Your task to perform on an android device: turn off location Image 0: 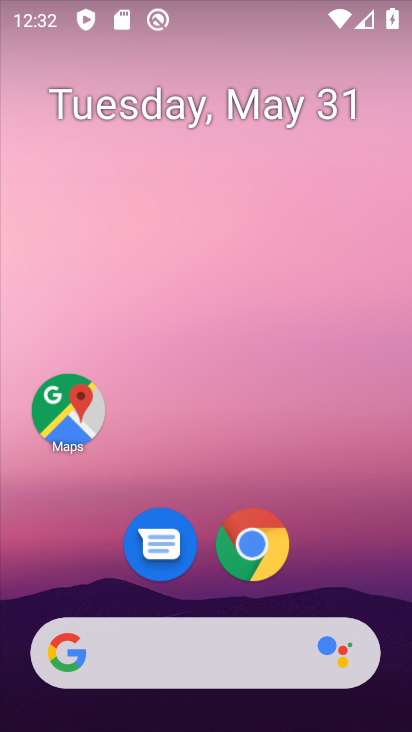
Step 0: drag from (45, 620) to (297, 13)
Your task to perform on an android device: turn off location Image 1: 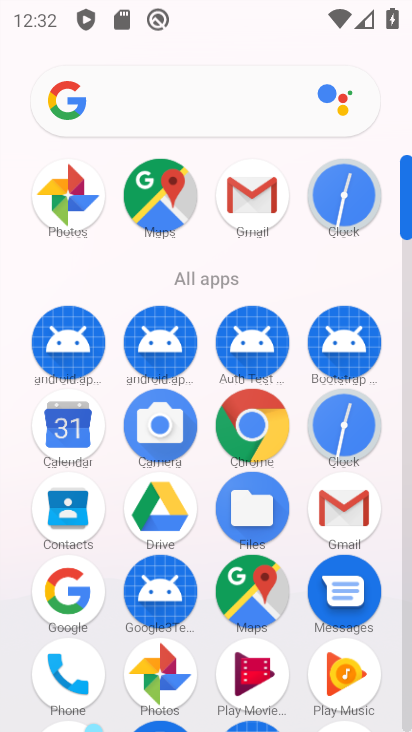
Step 1: drag from (243, 671) to (342, 208)
Your task to perform on an android device: turn off location Image 2: 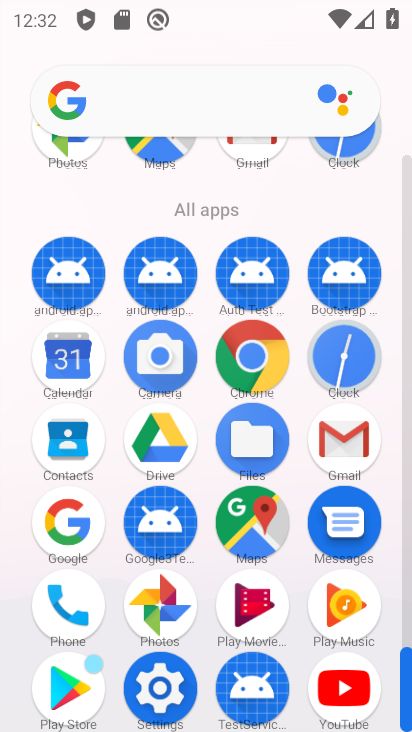
Step 2: click (166, 685)
Your task to perform on an android device: turn off location Image 3: 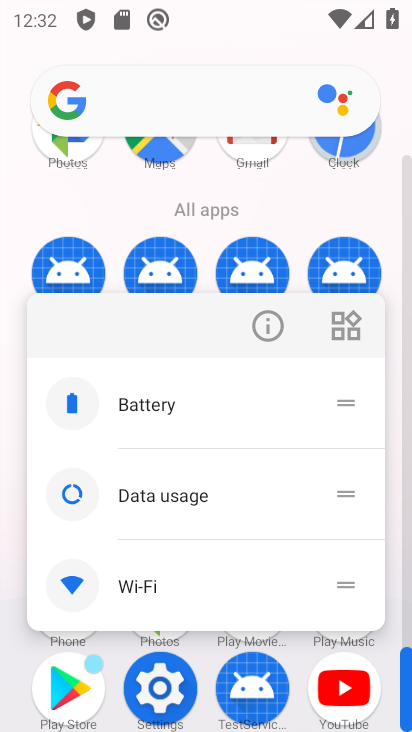
Step 3: click (152, 706)
Your task to perform on an android device: turn off location Image 4: 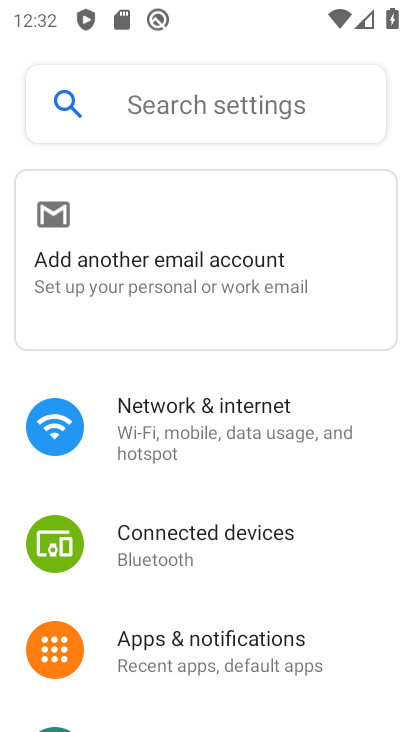
Step 4: drag from (155, 629) to (277, 105)
Your task to perform on an android device: turn off location Image 5: 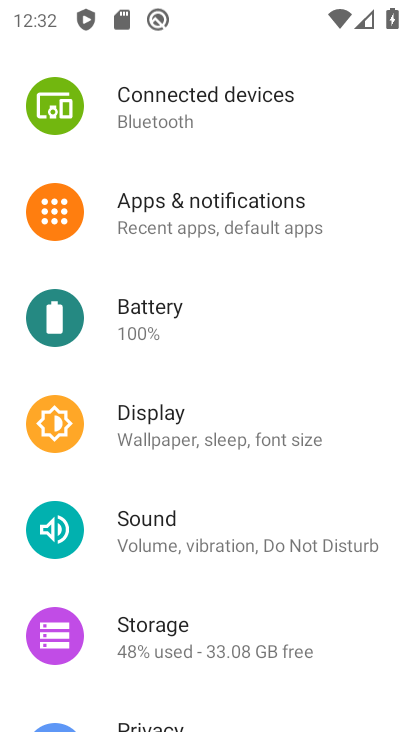
Step 5: drag from (225, 625) to (357, 155)
Your task to perform on an android device: turn off location Image 6: 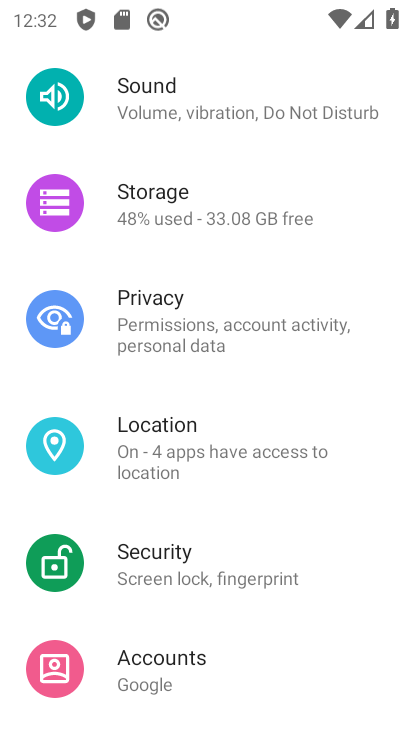
Step 6: click (203, 467)
Your task to perform on an android device: turn off location Image 7: 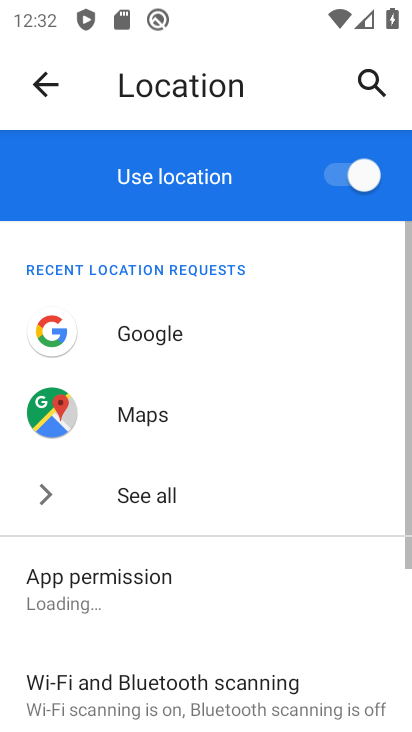
Step 7: click (338, 175)
Your task to perform on an android device: turn off location Image 8: 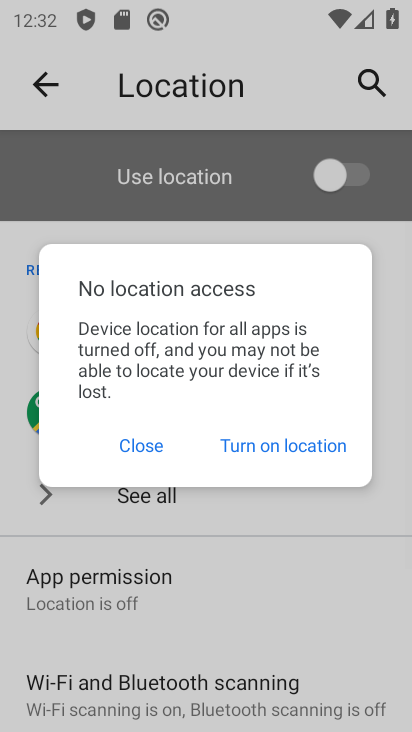
Step 8: task complete